Your task to perform on an android device: turn off location Image 0: 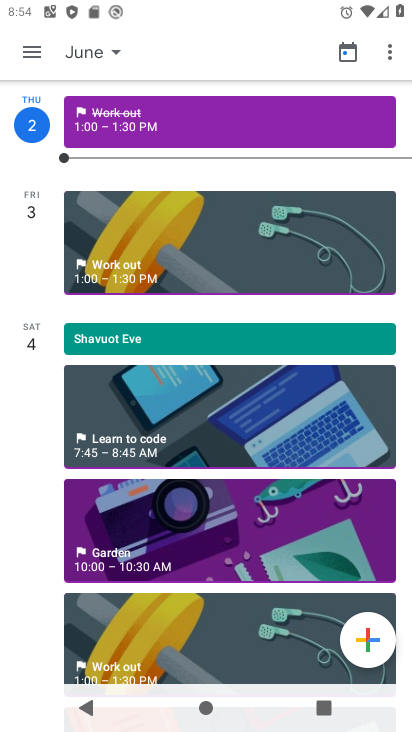
Step 0: press home button
Your task to perform on an android device: turn off location Image 1: 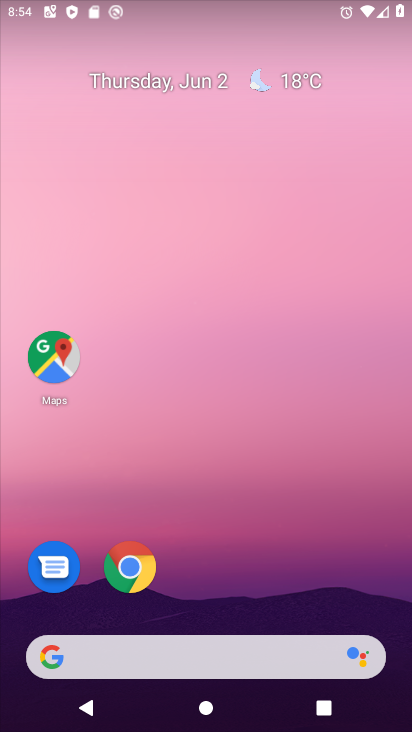
Step 1: drag from (219, 592) to (264, 81)
Your task to perform on an android device: turn off location Image 2: 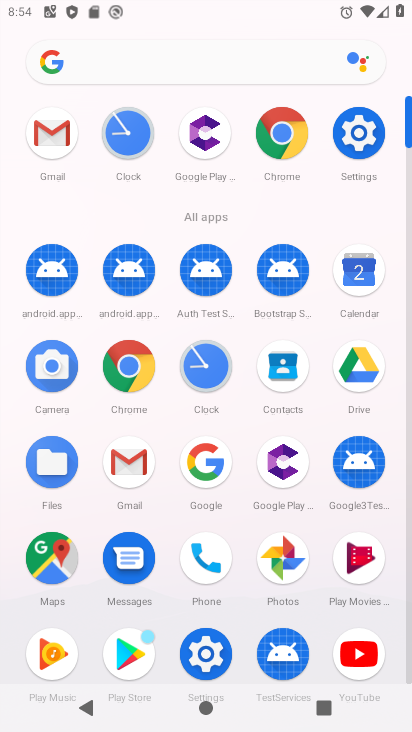
Step 2: click (357, 153)
Your task to perform on an android device: turn off location Image 3: 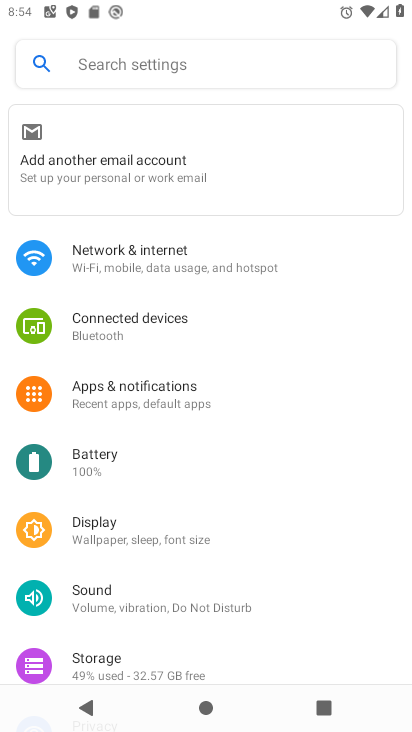
Step 3: drag from (146, 608) to (177, 432)
Your task to perform on an android device: turn off location Image 4: 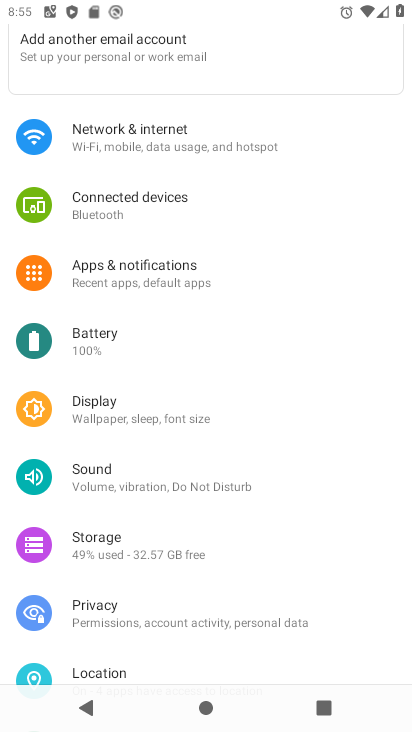
Step 4: click (112, 672)
Your task to perform on an android device: turn off location Image 5: 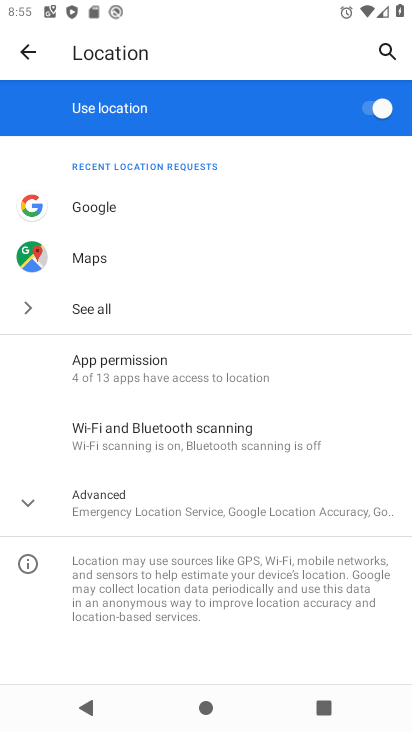
Step 5: click (364, 112)
Your task to perform on an android device: turn off location Image 6: 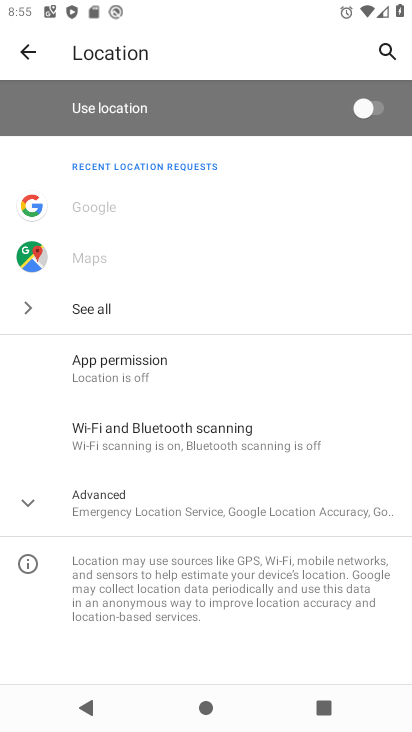
Step 6: task complete